Your task to perform on an android device: Go to location settings Image 0: 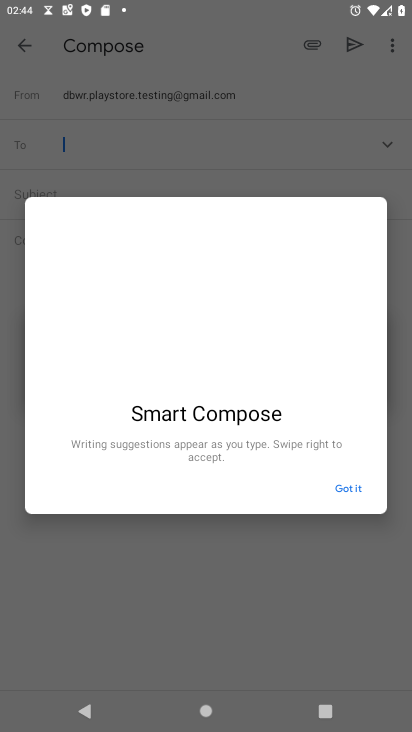
Step 0: press home button
Your task to perform on an android device: Go to location settings Image 1: 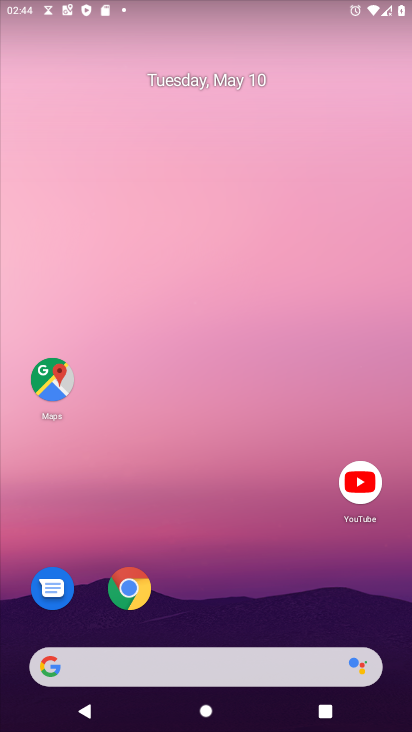
Step 1: click (250, 514)
Your task to perform on an android device: Go to location settings Image 2: 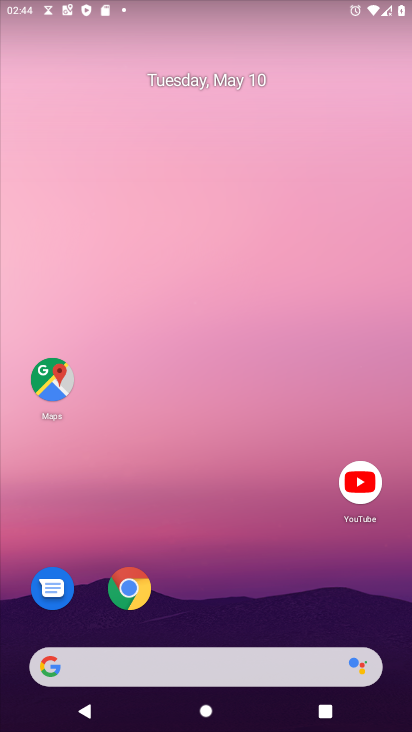
Step 2: drag from (220, 443) to (199, 234)
Your task to perform on an android device: Go to location settings Image 3: 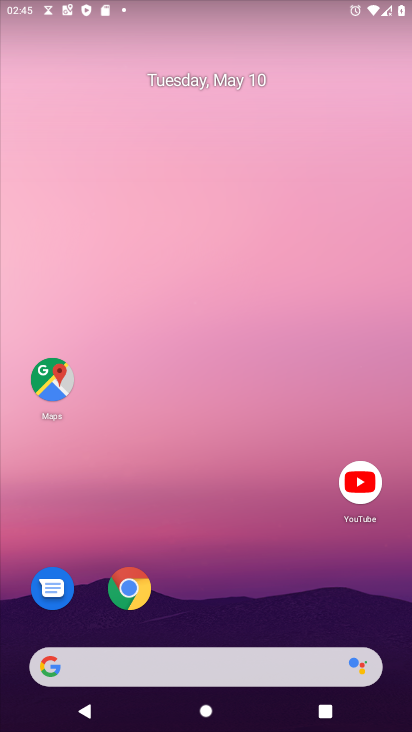
Step 3: drag from (221, 605) to (236, 84)
Your task to perform on an android device: Go to location settings Image 4: 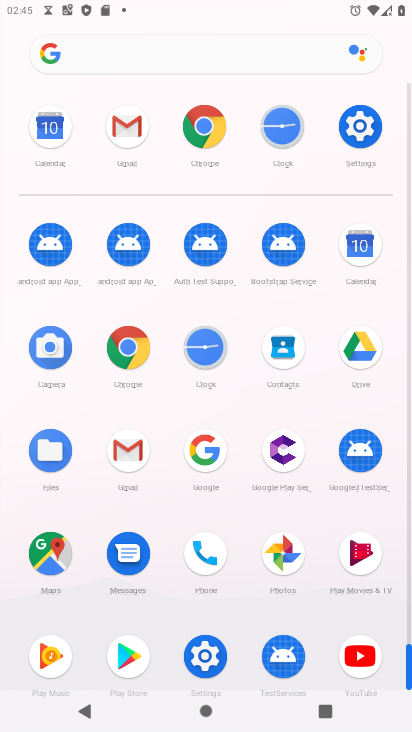
Step 4: click (380, 135)
Your task to perform on an android device: Go to location settings Image 5: 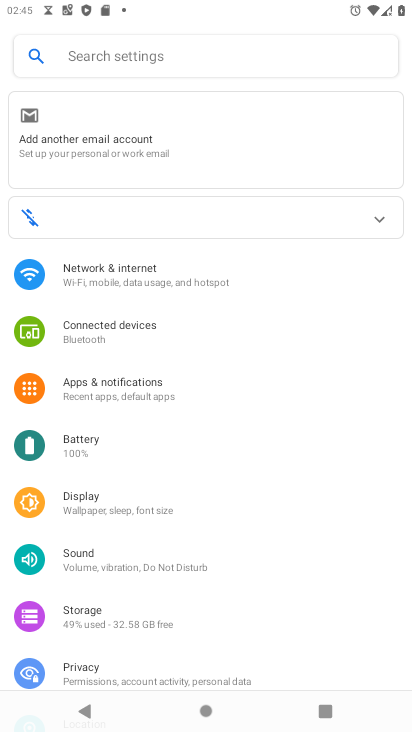
Step 5: drag from (120, 399) to (185, 204)
Your task to perform on an android device: Go to location settings Image 6: 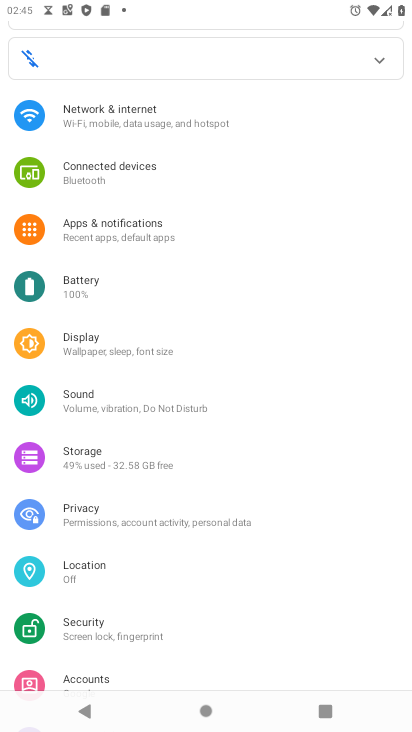
Step 6: click (91, 561)
Your task to perform on an android device: Go to location settings Image 7: 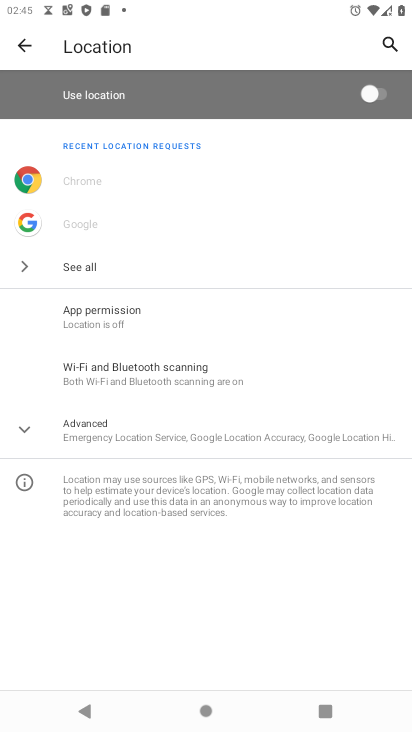
Step 7: task complete